Your task to perform on an android device: turn on priority inbox in the gmail app Image 0: 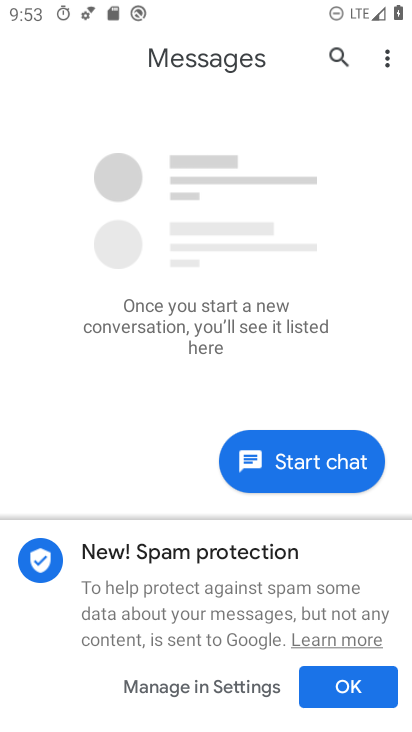
Step 0: press home button
Your task to perform on an android device: turn on priority inbox in the gmail app Image 1: 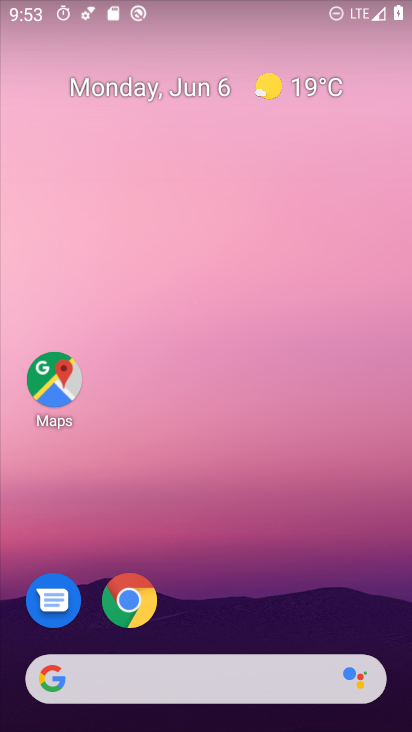
Step 1: drag from (350, 586) to (350, 13)
Your task to perform on an android device: turn on priority inbox in the gmail app Image 2: 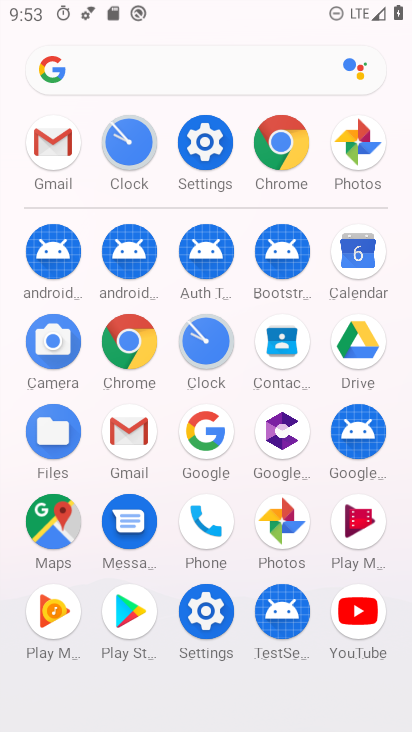
Step 2: click (132, 439)
Your task to perform on an android device: turn on priority inbox in the gmail app Image 3: 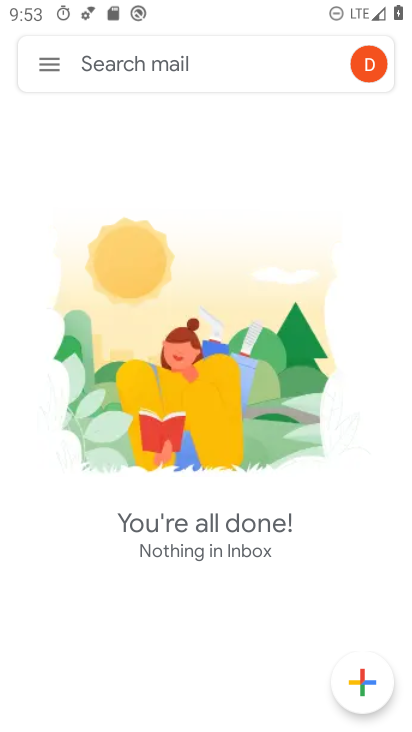
Step 3: click (49, 58)
Your task to perform on an android device: turn on priority inbox in the gmail app Image 4: 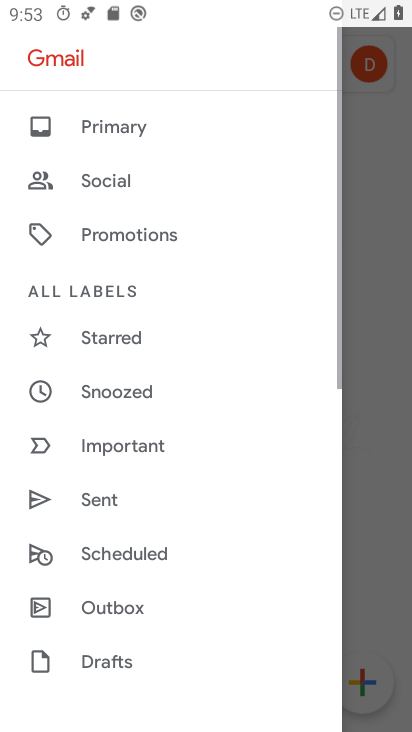
Step 4: drag from (168, 655) to (199, 47)
Your task to perform on an android device: turn on priority inbox in the gmail app Image 5: 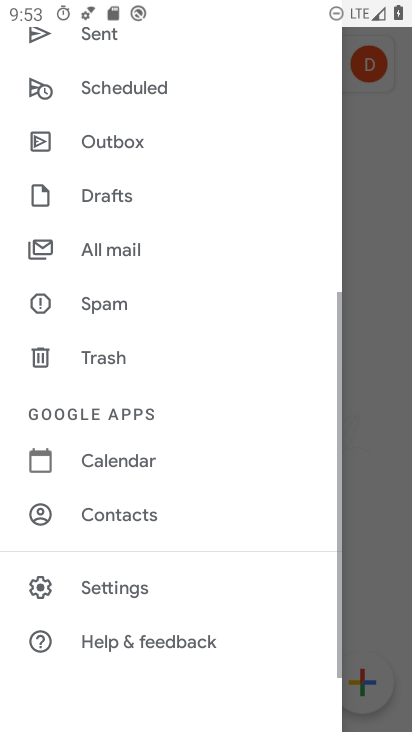
Step 5: click (156, 596)
Your task to perform on an android device: turn on priority inbox in the gmail app Image 6: 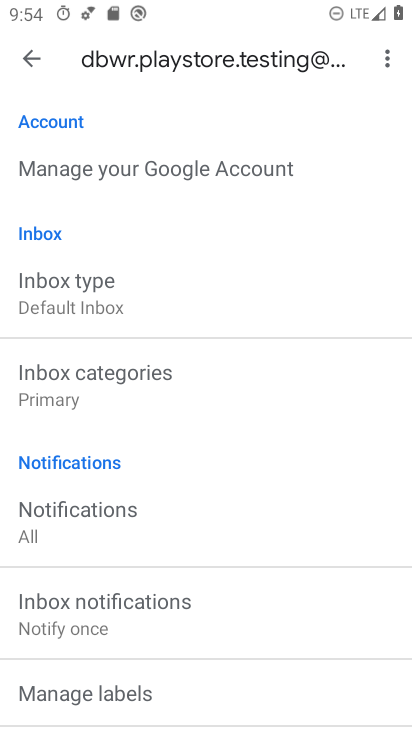
Step 6: click (144, 297)
Your task to perform on an android device: turn on priority inbox in the gmail app Image 7: 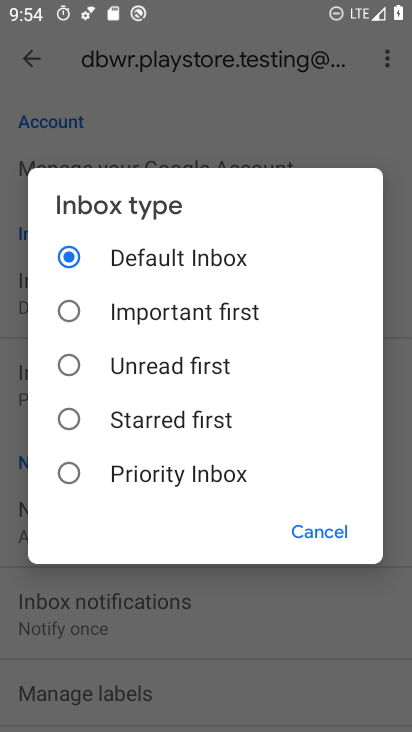
Step 7: click (184, 475)
Your task to perform on an android device: turn on priority inbox in the gmail app Image 8: 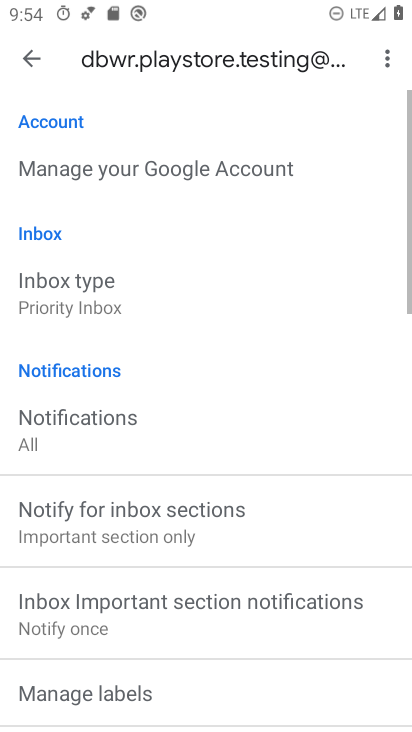
Step 8: task complete